Your task to perform on an android device: add a contact in the contacts app Image 0: 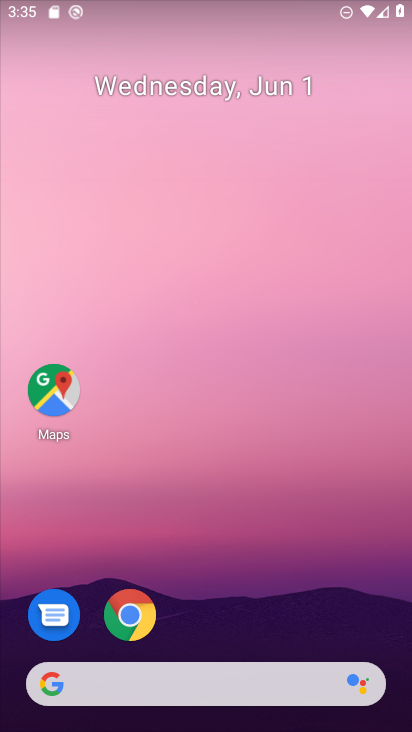
Step 0: press home button
Your task to perform on an android device: add a contact in the contacts app Image 1: 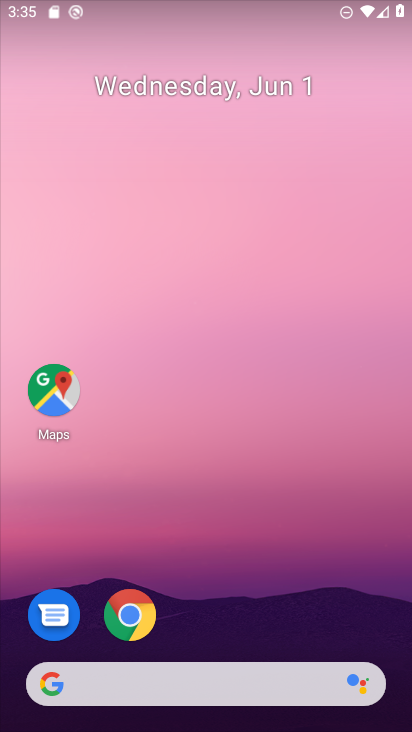
Step 1: drag from (262, 633) to (282, 80)
Your task to perform on an android device: add a contact in the contacts app Image 2: 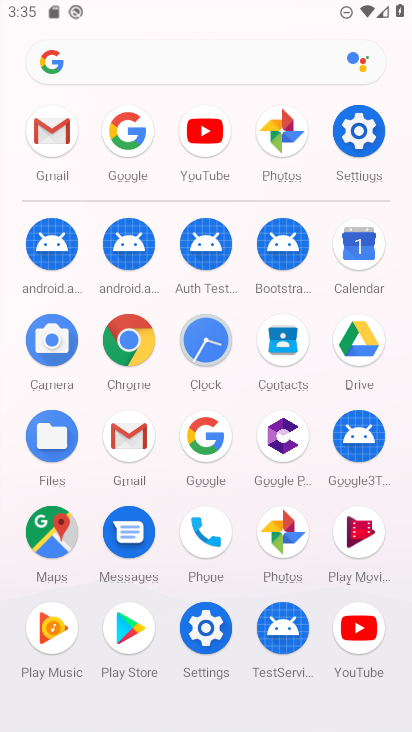
Step 2: click (279, 335)
Your task to perform on an android device: add a contact in the contacts app Image 3: 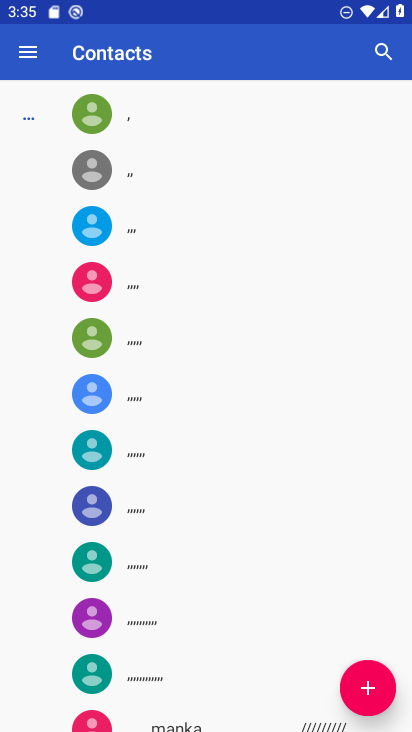
Step 3: click (364, 684)
Your task to perform on an android device: add a contact in the contacts app Image 4: 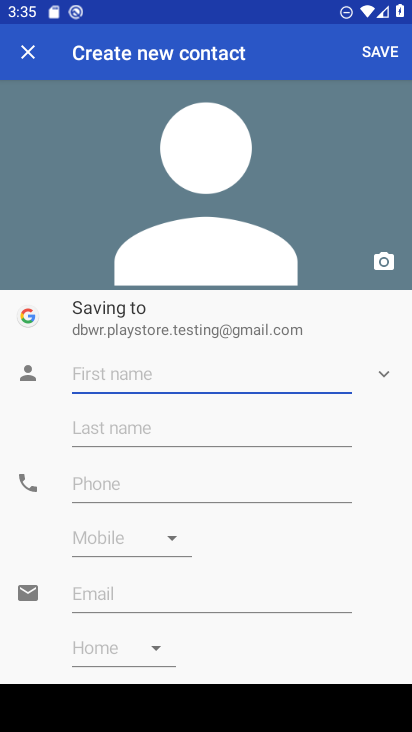
Step 4: type "hgvfx"
Your task to perform on an android device: add a contact in the contacts app Image 5: 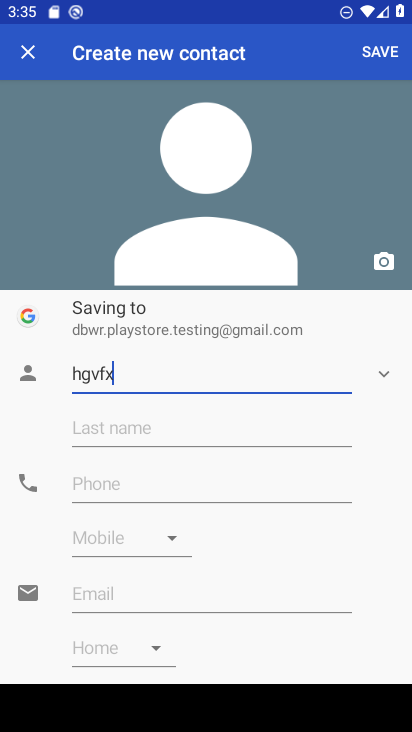
Step 5: click (380, 50)
Your task to perform on an android device: add a contact in the contacts app Image 6: 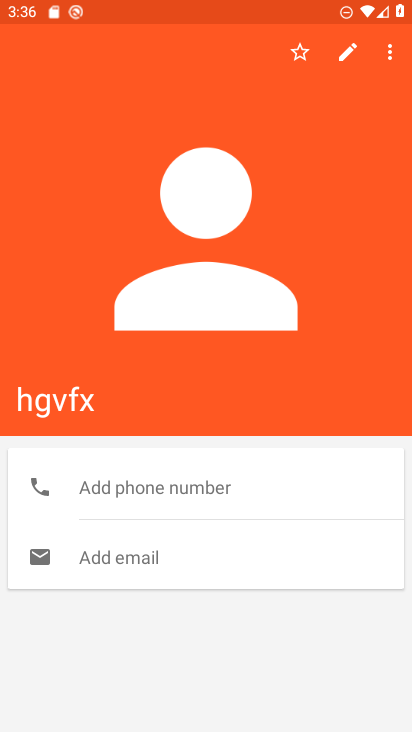
Step 6: task complete